Your task to perform on an android device: turn off notifications in google photos Image 0: 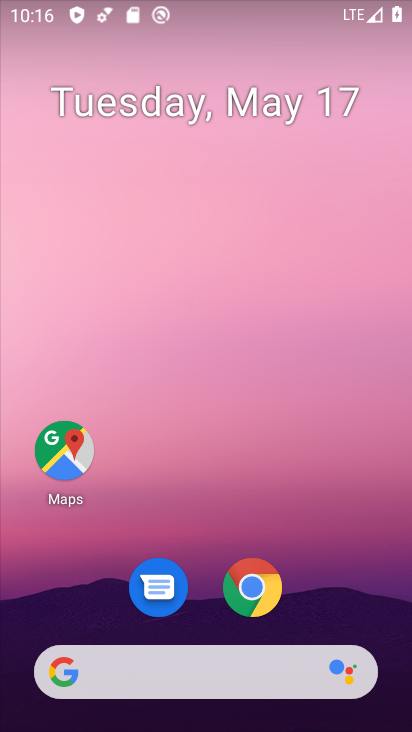
Step 0: drag from (381, 633) to (310, 86)
Your task to perform on an android device: turn off notifications in google photos Image 1: 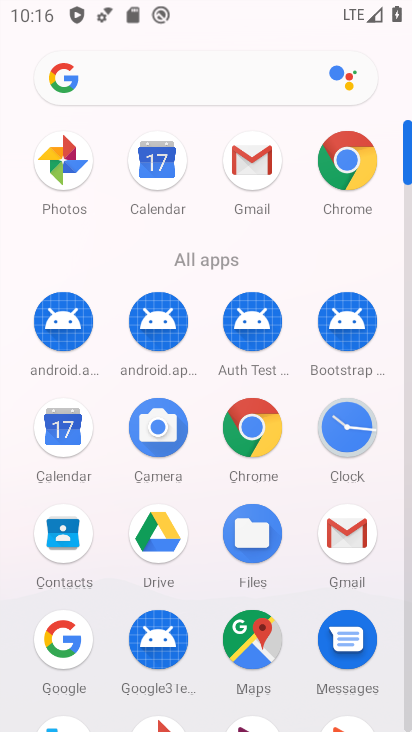
Step 1: drag from (203, 669) to (209, 162)
Your task to perform on an android device: turn off notifications in google photos Image 2: 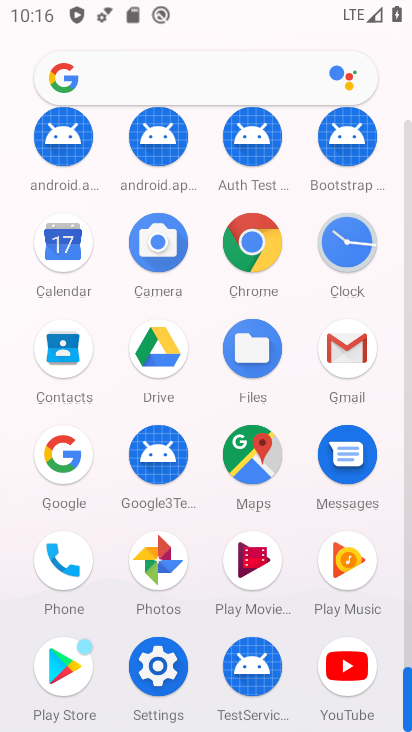
Step 2: click (162, 594)
Your task to perform on an android device: turn off notifications in google photos Image 3: 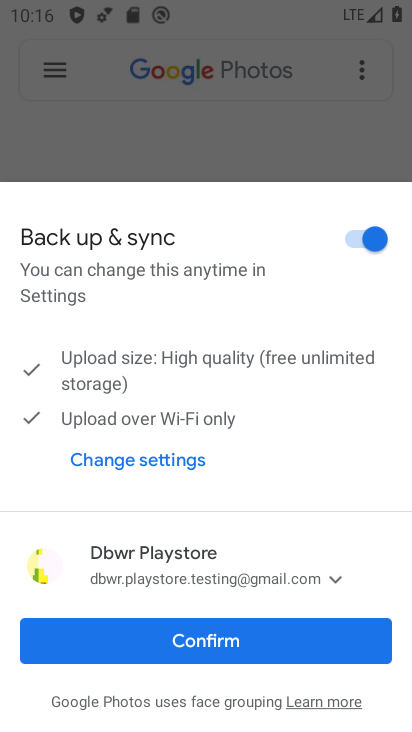
Step 3: click (215, 628)
Your task to perform on an android device: turn off notifications in google photos Image 4: 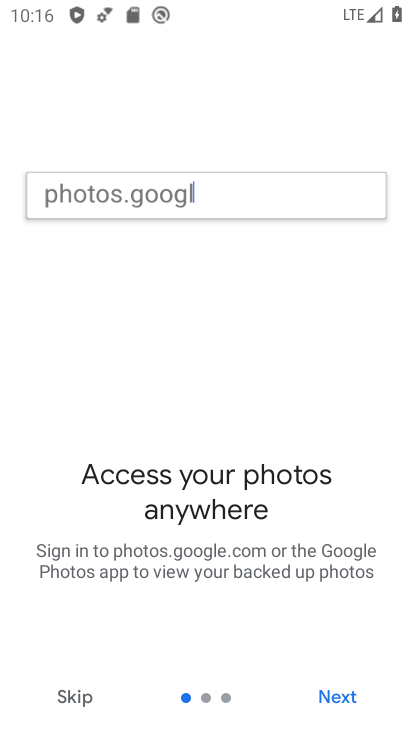
Step 4: click (345, 685)
Your task to perform on an android device: turn off notifications in google photos Image 5: 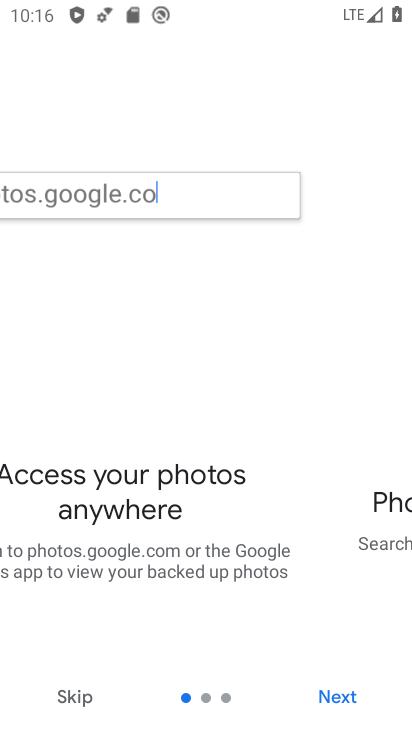
Step 5: click (345, 685)
Your task to perform on an android device: turn off notifications in google photos Image 6: 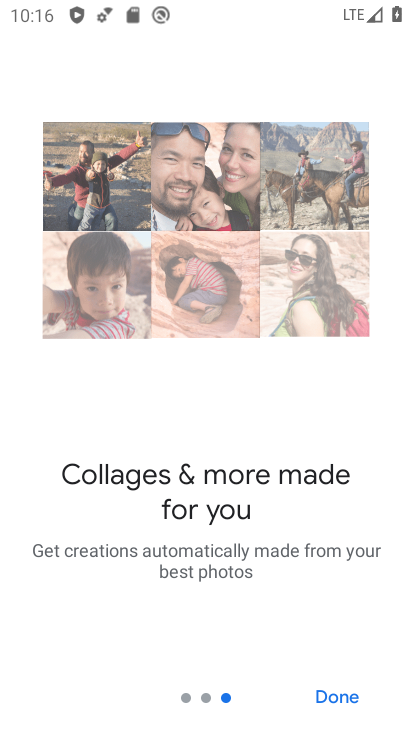
Step 6: click (345, 685)
Your task to perform on an android device: turn off notifications in google photos Image 7: 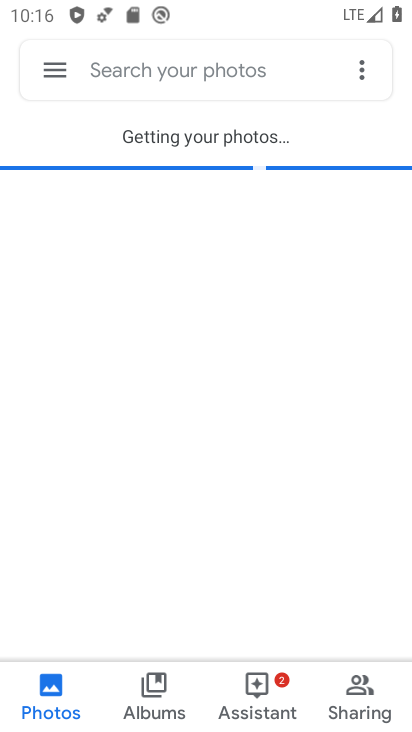
Step 7: click (46, 71)
Your task to perform on an android device: turn off notifications in google photos Image 8: 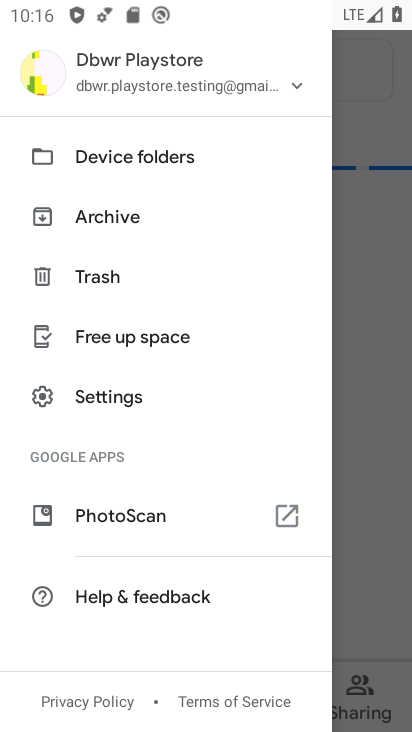
Step 8: click (128, 397)
Your task to perform on an android device: turn off notifications in google photos Image 9: 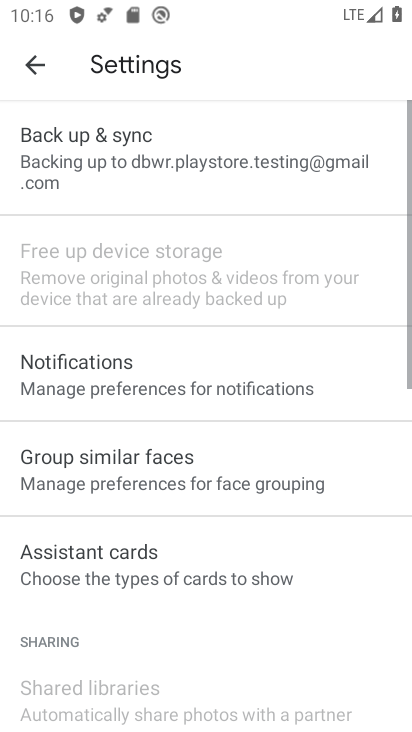
Step 9: click (126, 387)
Your task to perform on an android device: turn off notifications in google photos Image 10: 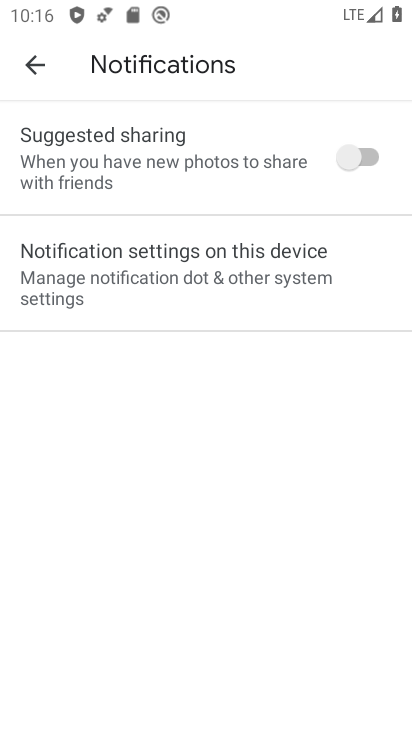
Step 10: task complete